Your task to perform on an android device: Open display settings Image 0: 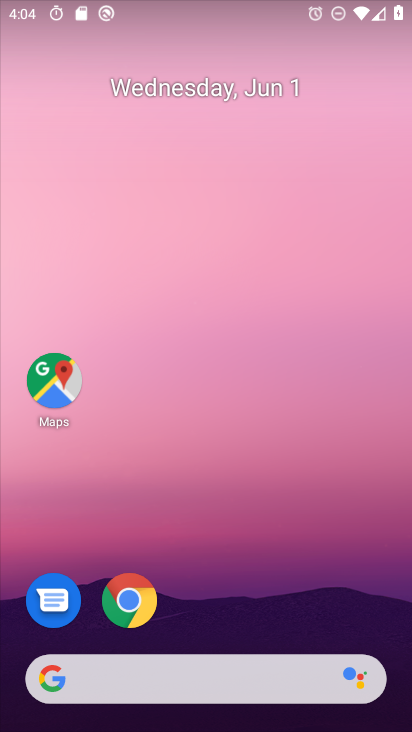
Step 0: click (263, 188)
Your task to perform on an android device: Open display settings Image 1: 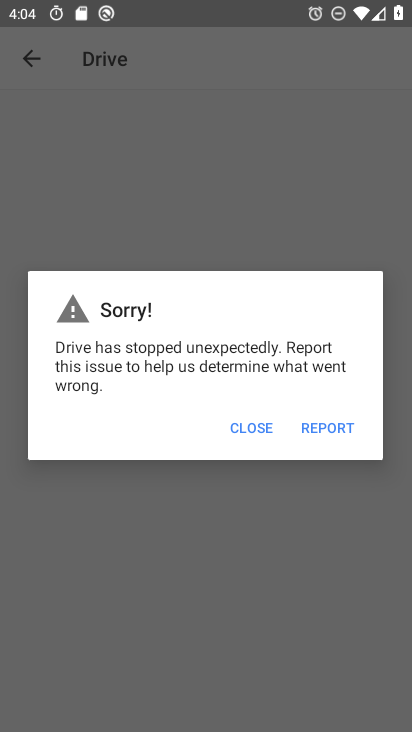
Step 1: drag from (208, 626) to (211, 515)
Your task to perform on an android device: Open display settings Image 2: 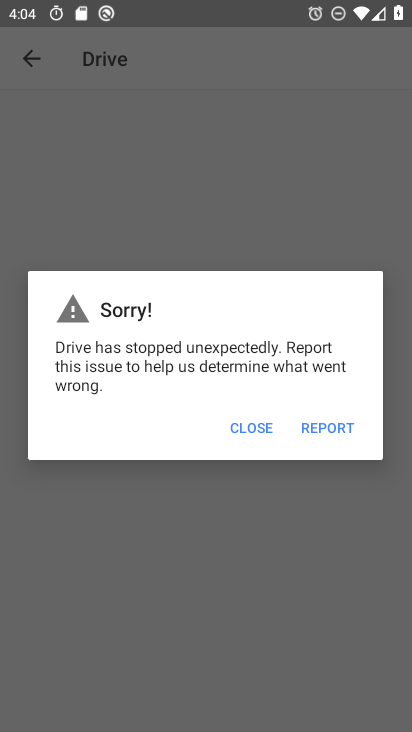
Step 2: press home button
Your task to perform on an android device: Open display settings Image 3: 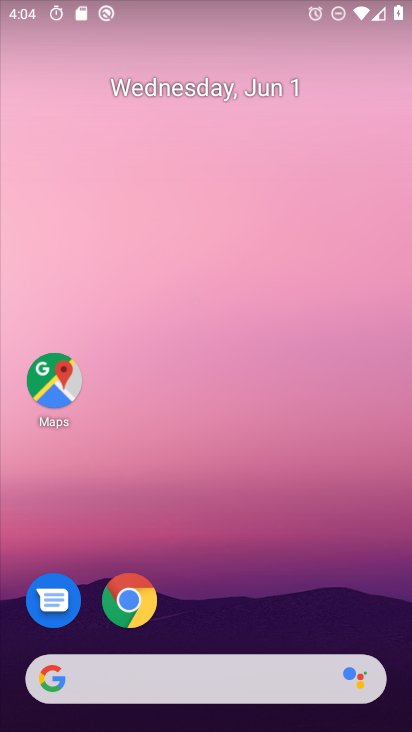
Step 3: drag from (221, 614) to (219, 155)
Your task to perform on an android device: Open display settings Image 4: 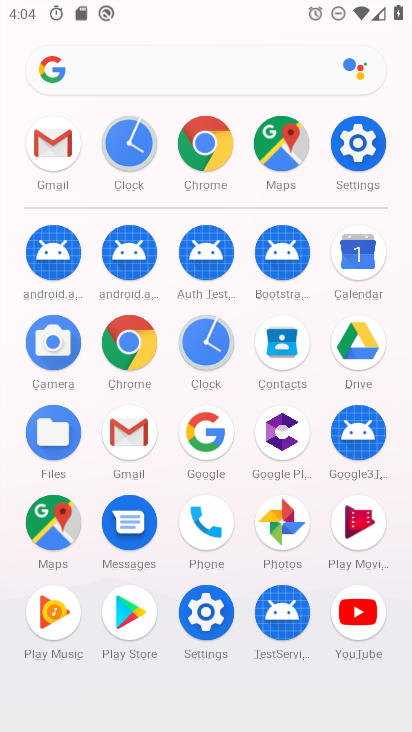
Step 4: click (363, 142)
Your task to perform on an android device: Open display settings Image 5: 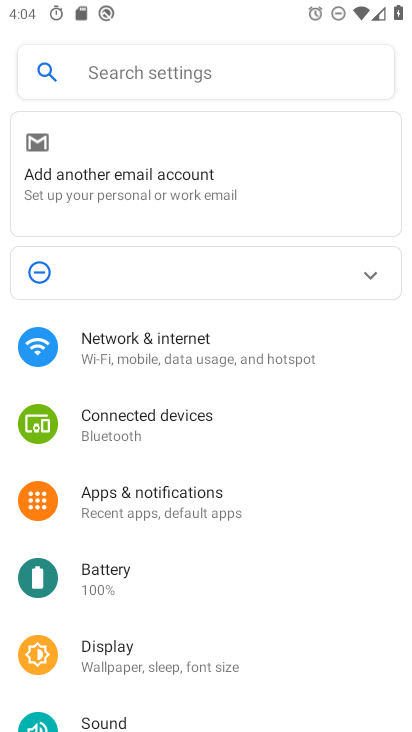
Step 5: click (79, 669)
Your task to perform on an android device: Open display settings Image 6: 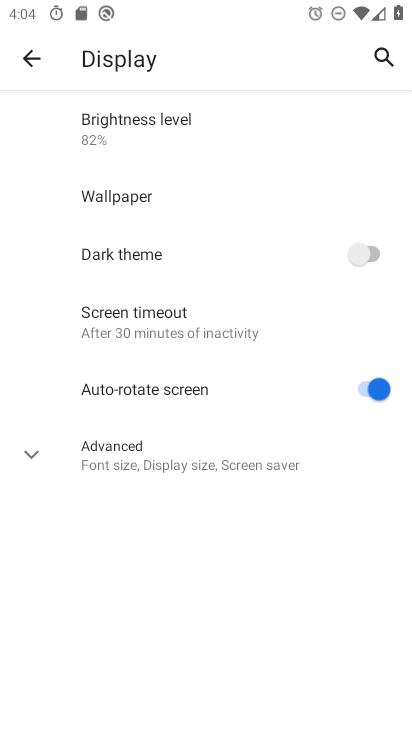
Step 6: task complete